Your task to perform on an android device: toggle priority inbox in the gmail app Image 0: 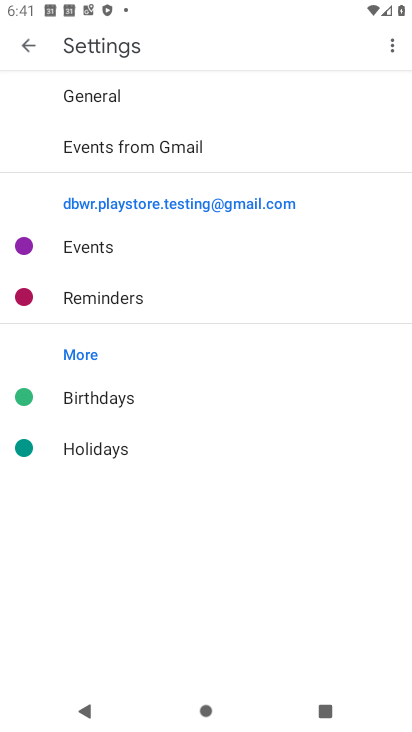
Step 0: press home button
Your task to perform on an android device: toggle priority inbox in the gmail app Image 1: 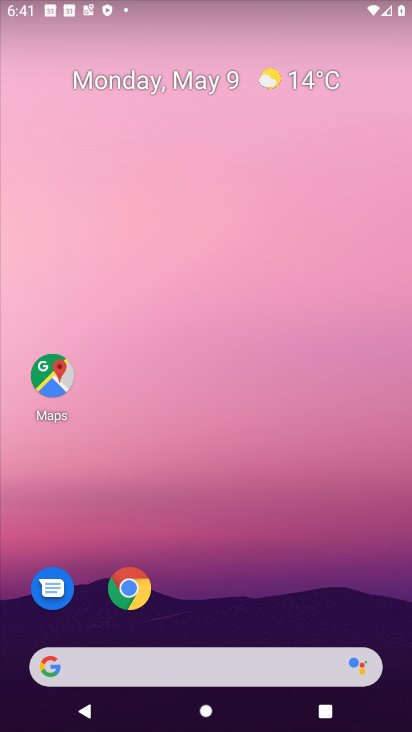
Step 1: drag from (308, 606) to (204, 98)
Your task to perform on an android device: toggle priority inbox in the gmail app Image 2: 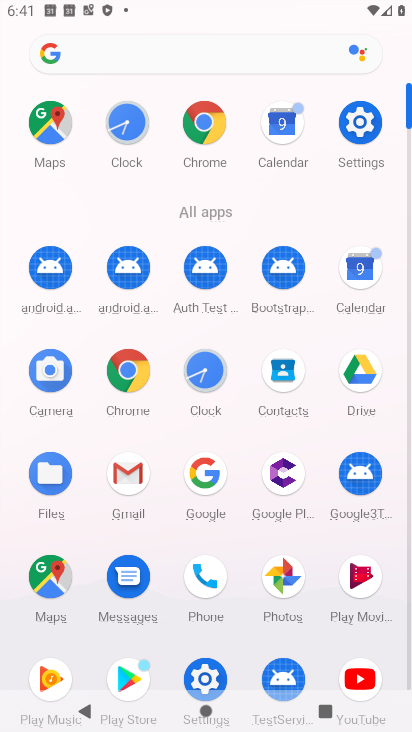
Step 2: click (127, 471)
Your task to perform on an android device: toggle priority inbox in the gmail app Image 3: 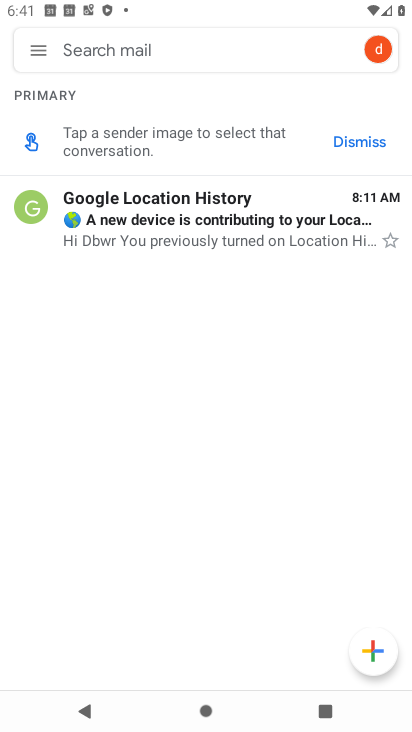
Step 3: click (24, 47)
Your task to perform on an android device: toggle priority inbox in the gmail app Image 4: 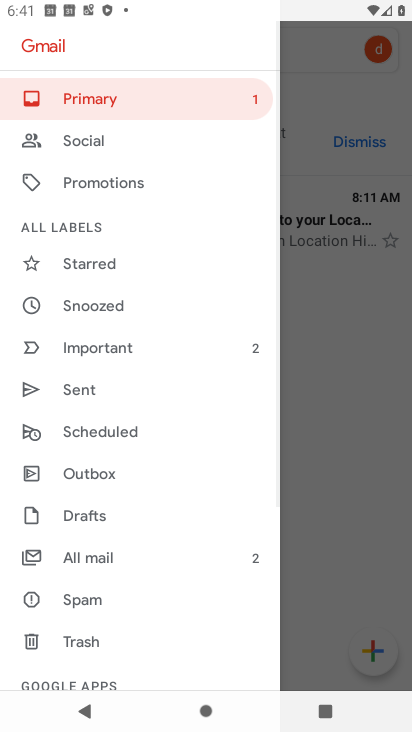
Step 4: drag from (92, 626) to (187, 58)
Your task to perform on an android device: toggle priority inbox in the gmail app Image 5: 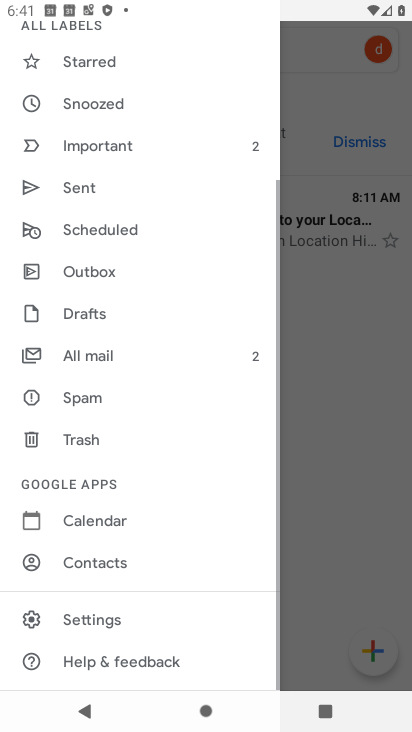
Step 5: drag from (91, 650) to (137, 623)
Your task to perform on an android device: toggle priority inbox in the gmail app Image 6: 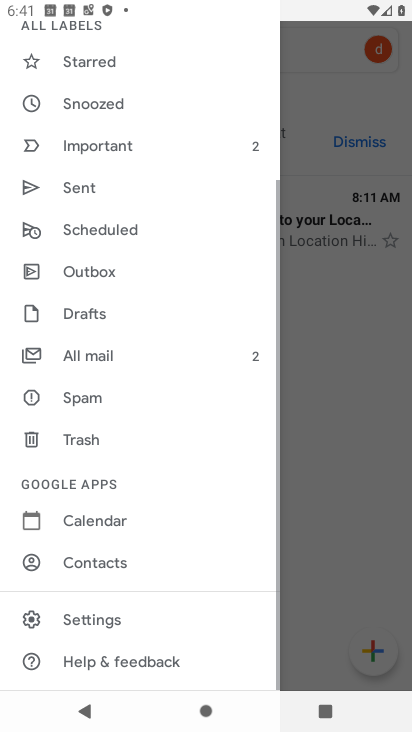
Step 6: click (137, 623)
Your task to perform on an android device: toggle priority inbox in the gmail app Image 7: 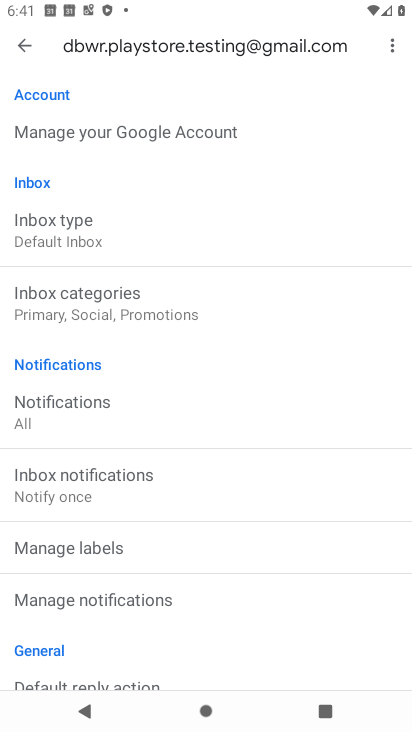
Step 7: click (136, 234)
Your task to perform on an android device: toggle priority inbox in the gmail app Image 8: 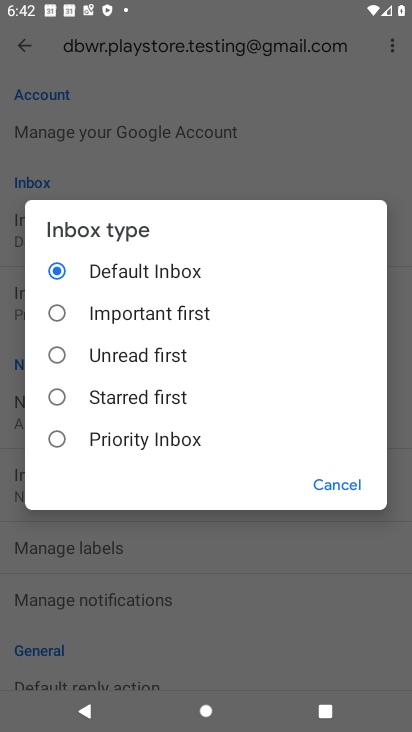
Step 8: click (90, 362)
Your task to perform on an android device: toggle priority inbox in the gmail app Image 9: 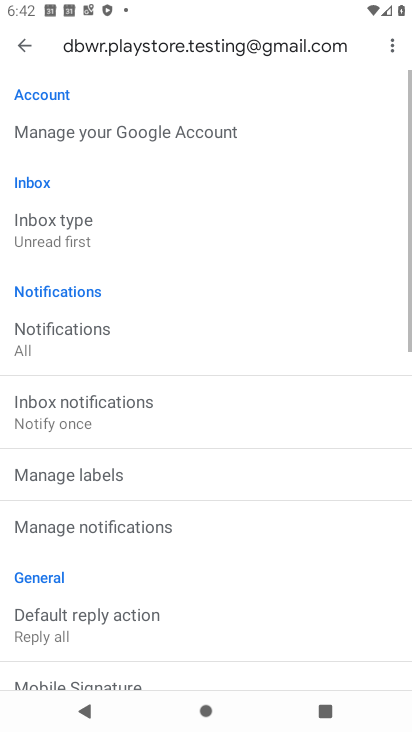
Step 9: task complete